Your task to perform on an android device: open app "PlayWell" Image 0: 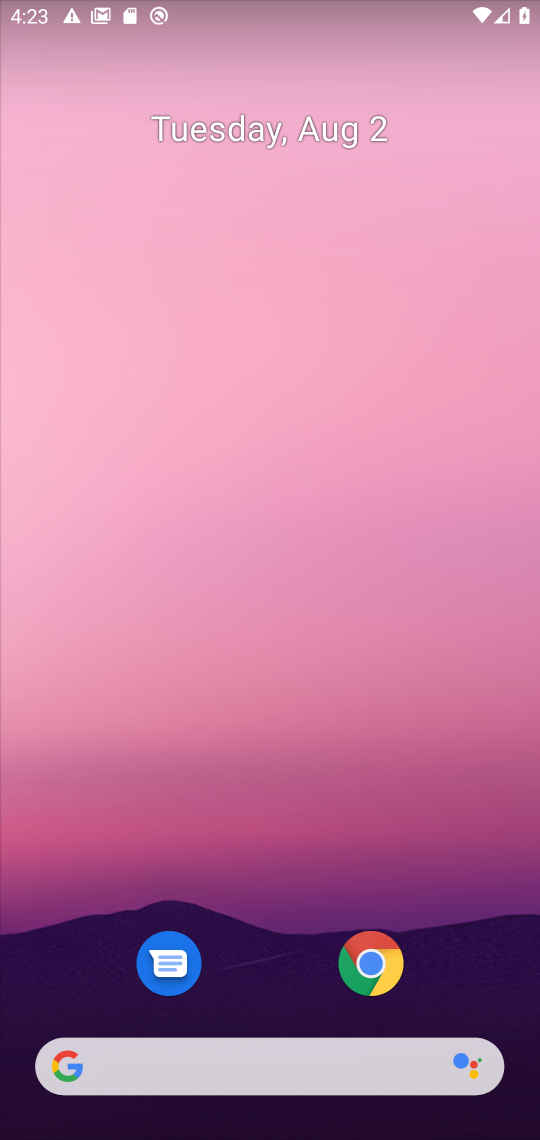
Step 0: drag from (273, 457) to (299, 243)
Your task to perform on an android device: open app "PlayWell" Image 1: 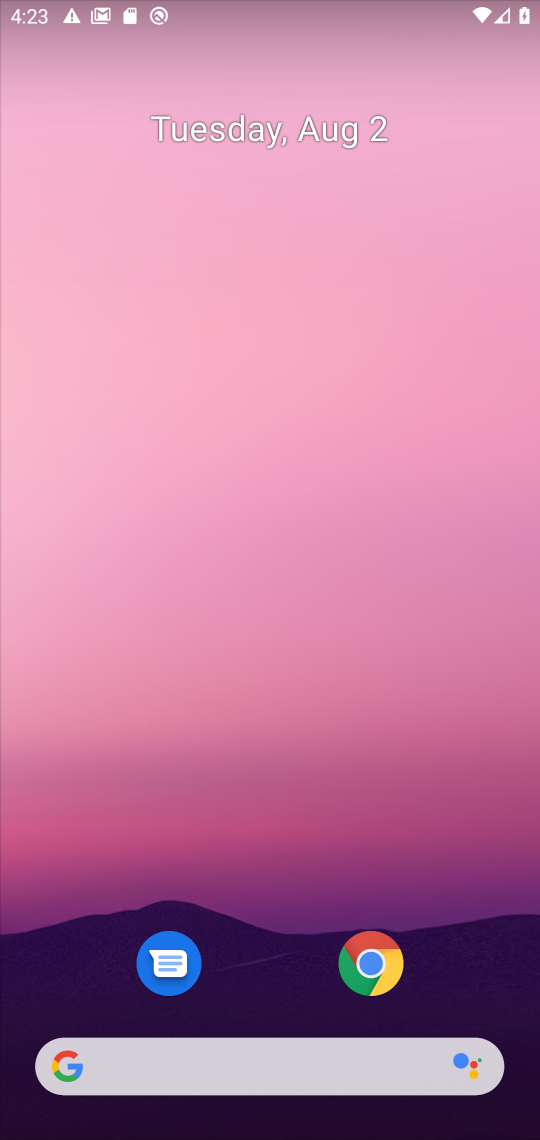
Step 1: drag from (241, 1030) to (305, 242)
Your task to perform on an android device: open app "PlayWell" Image 2: 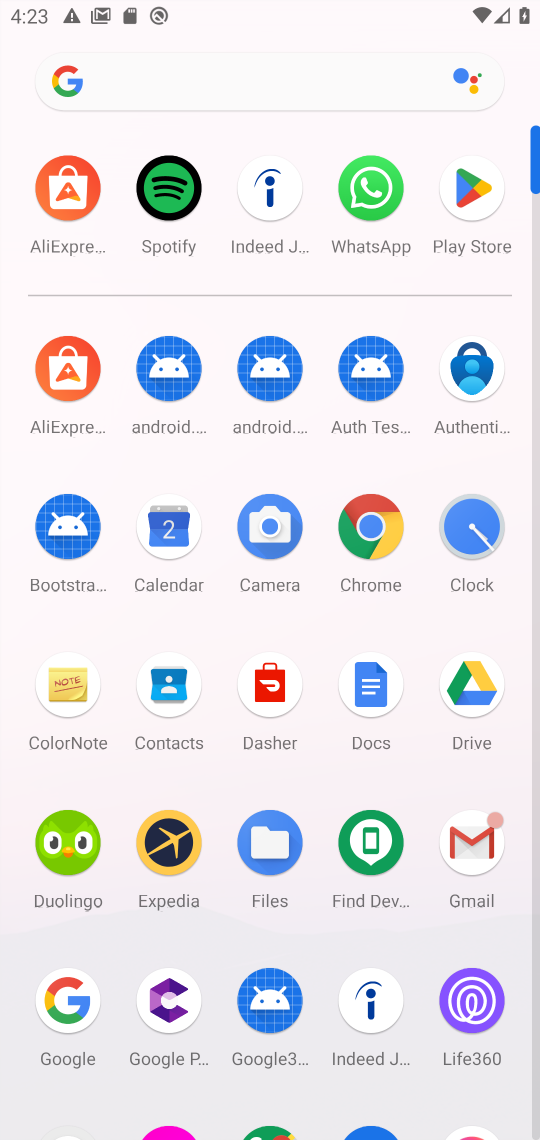
Step 2: click (476, 209)
Your task to perform on an android device: open app "PlayWell" Image 3: 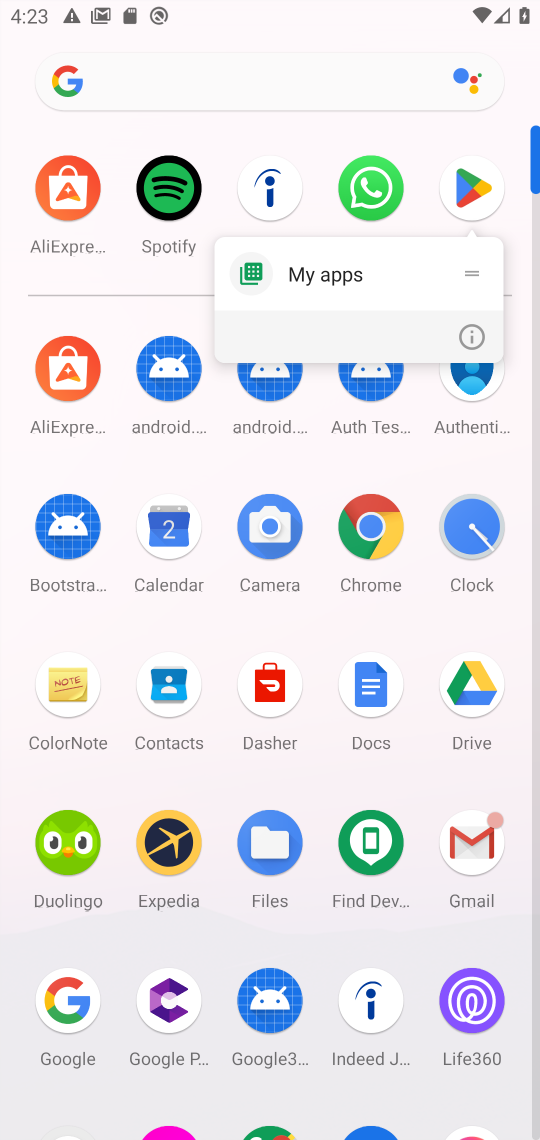
Step 3: click (476, 189)
Your task to perform on an android device: open app "PlayWell" Image 4: 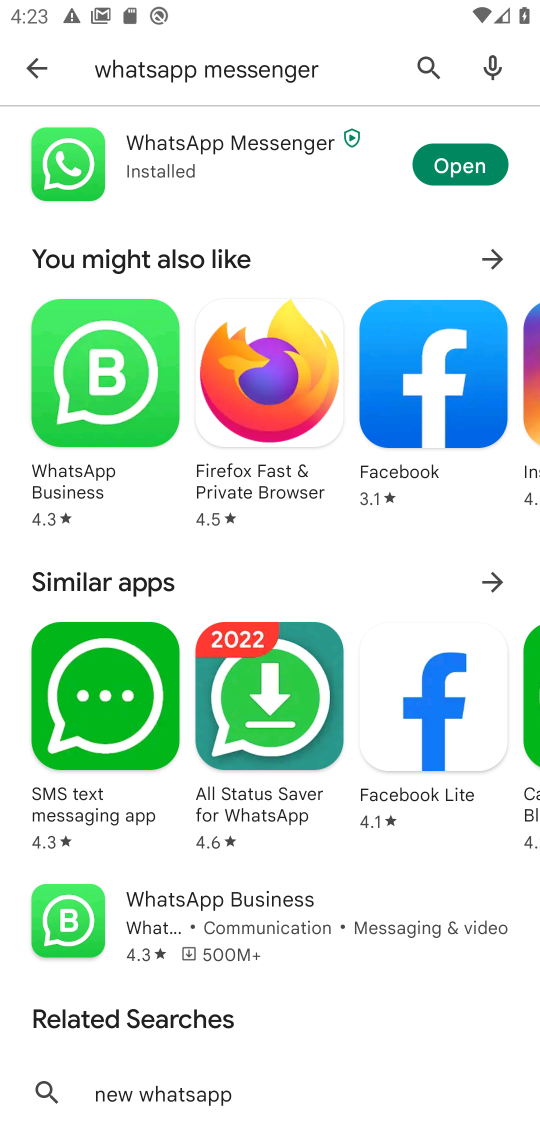
Step 4: click (38, 62)
Your task to perform on an android device: open app "PlayWell" Image 5: 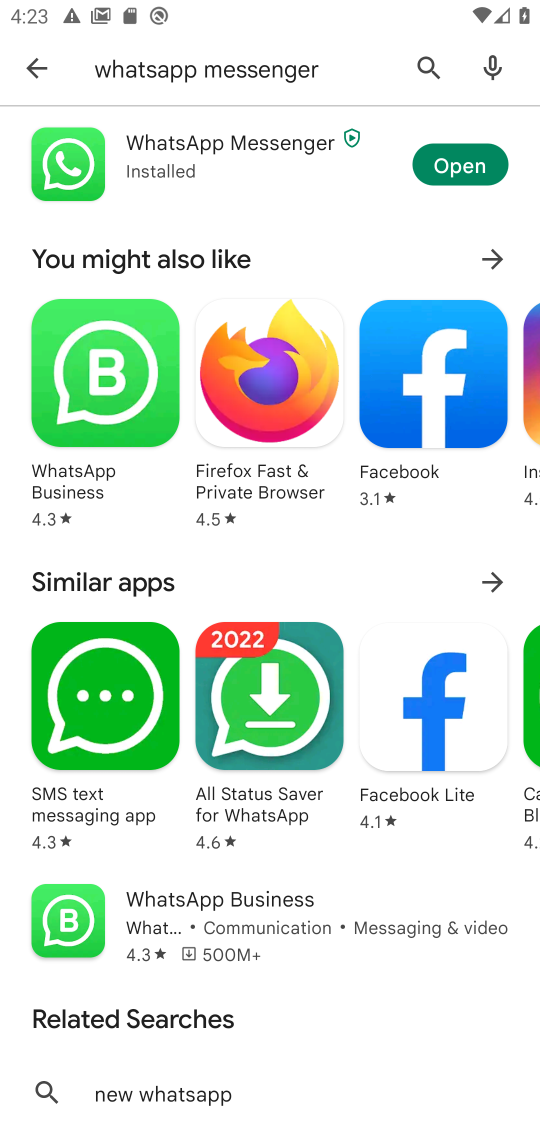
Step 5: click (38, 66)
Your task to perform on an android device: open app "PlayWell" Image 6: 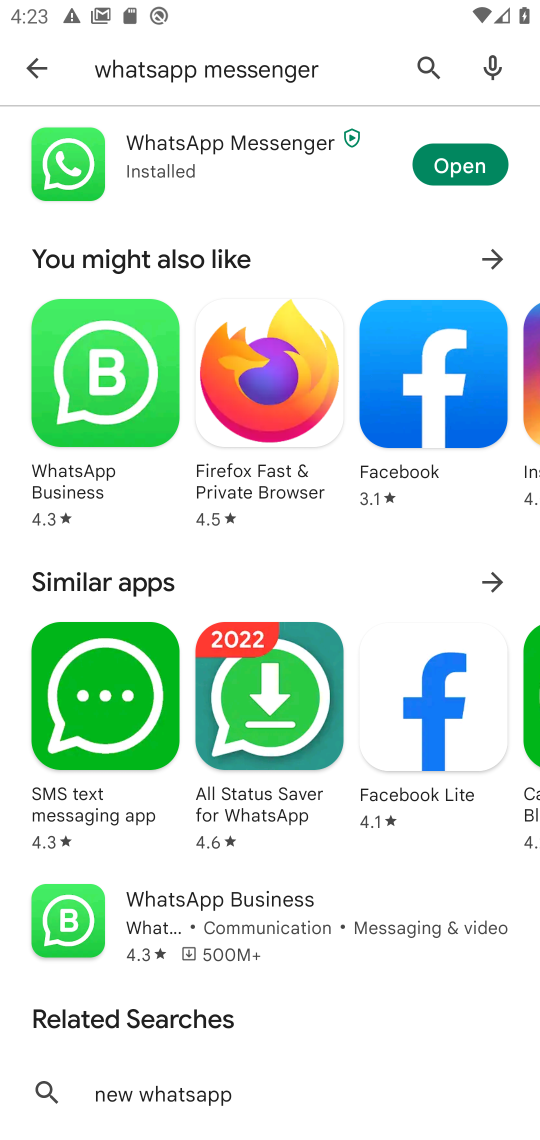
Step 6: click (29, 69)
Your task to perform on an android device: open app "PlayWell" Image 7: 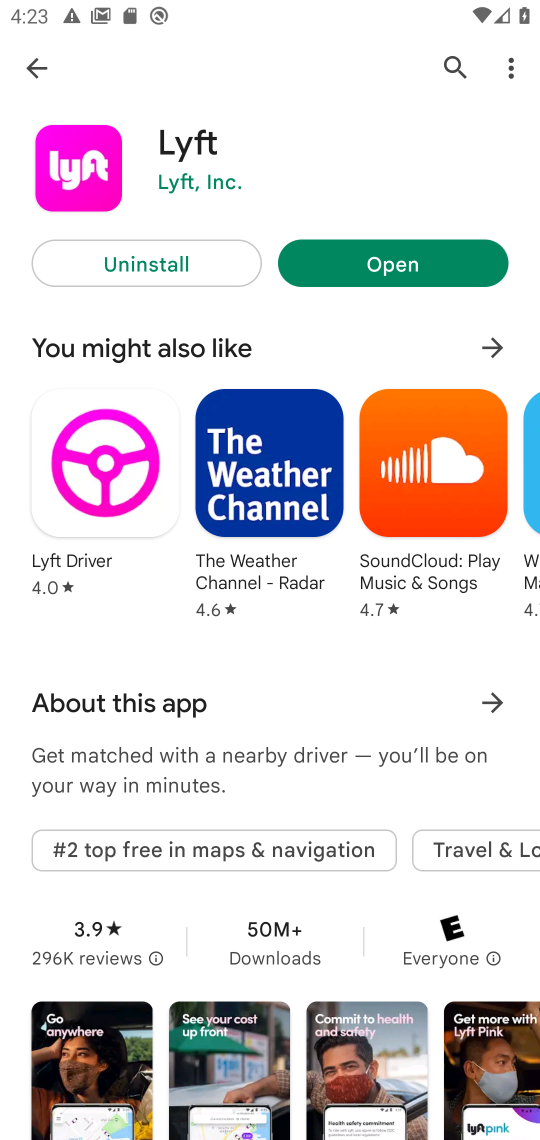
Step 7: click (437, 59)
Your task to perform on an android device: open app "PlayWell" Image 8: 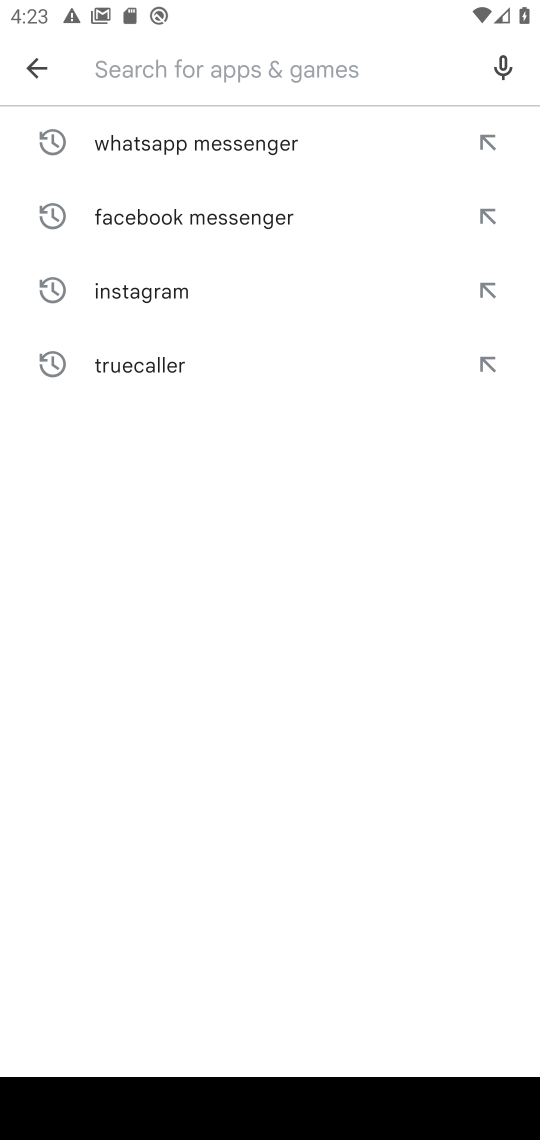
Step 8: type "PlayWell"
Your task to perform on an android device: open app "PlayWell" Image 9: 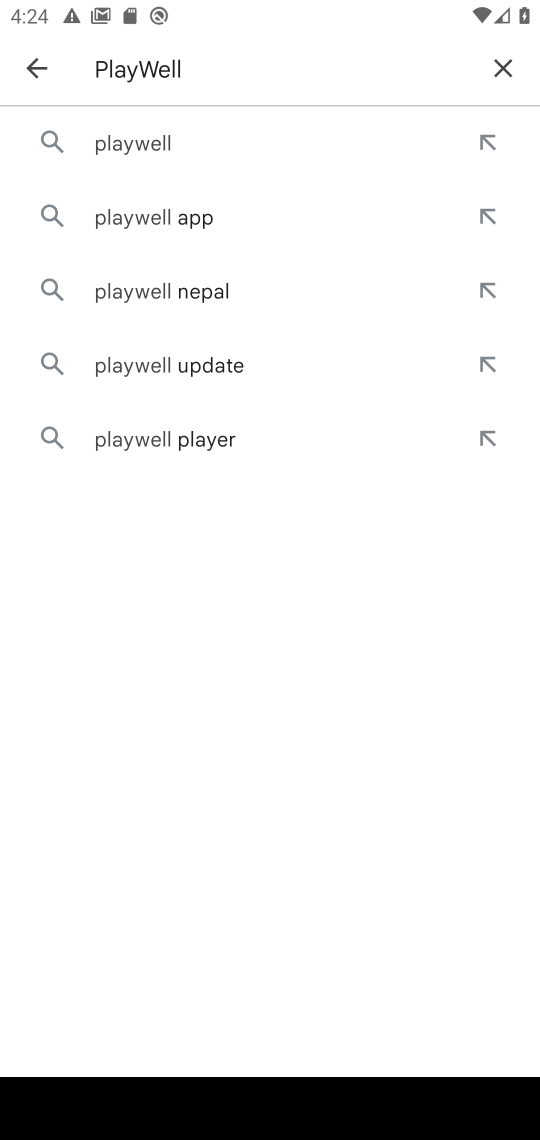
Step 9: click (157, 141)
Your task to perform on an android device: open app "PlayWell" Image 10: 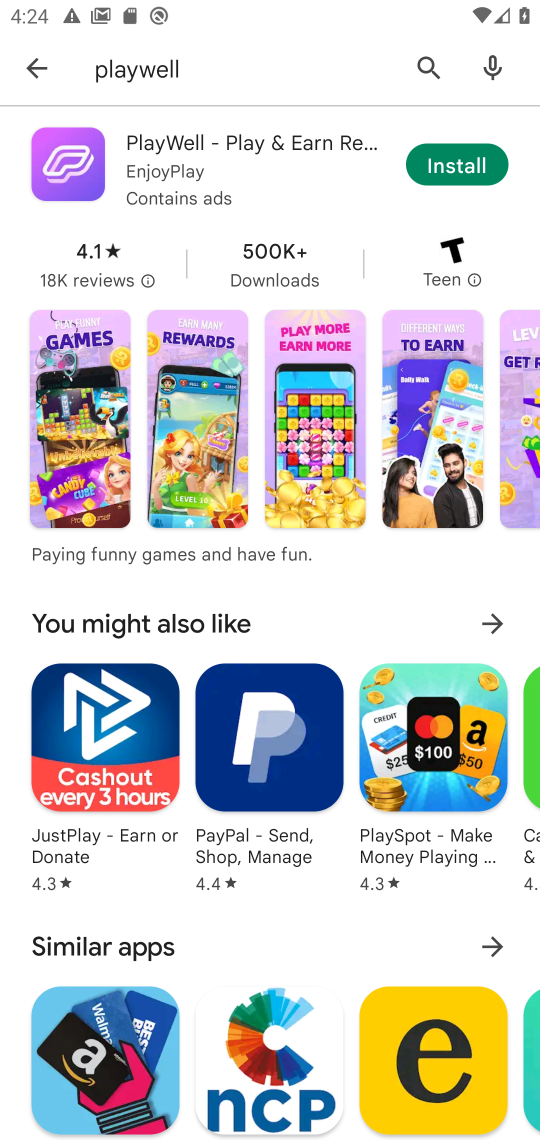
Step 10: click (462, 175)
Your task to perform on an android device: open app "PlayWell" Image 11: 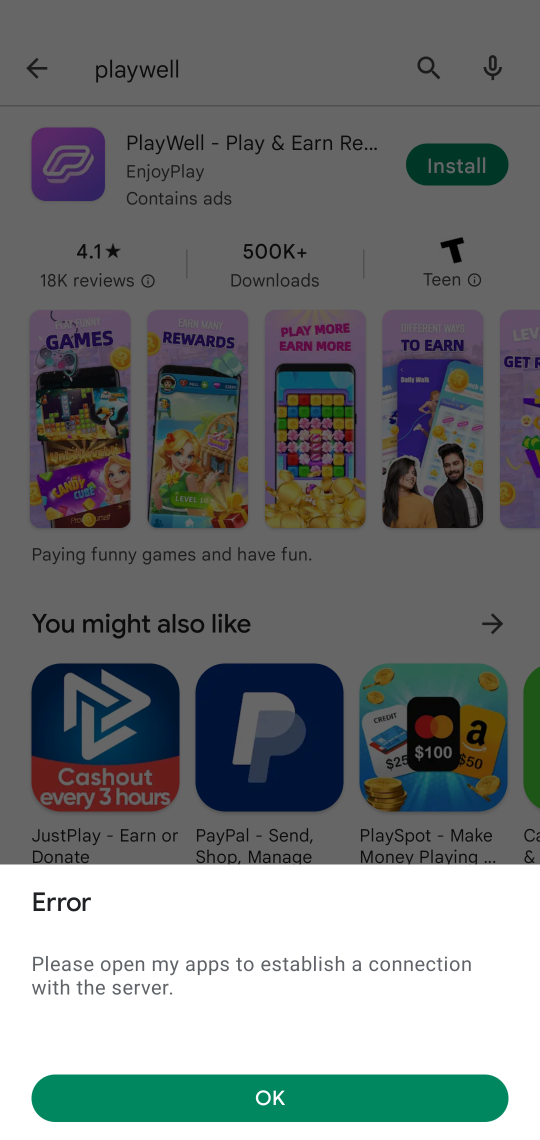
Step 11: task complete